Your task to perform on an android device: set the stopwatch Image 0: 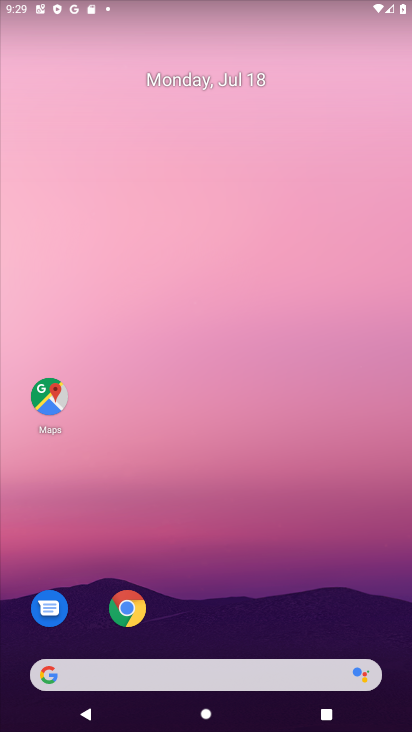
Step 0: drag from (190, 535) to (190, 270)
Your task to perform on an android device: set the stopwatch Image 1: 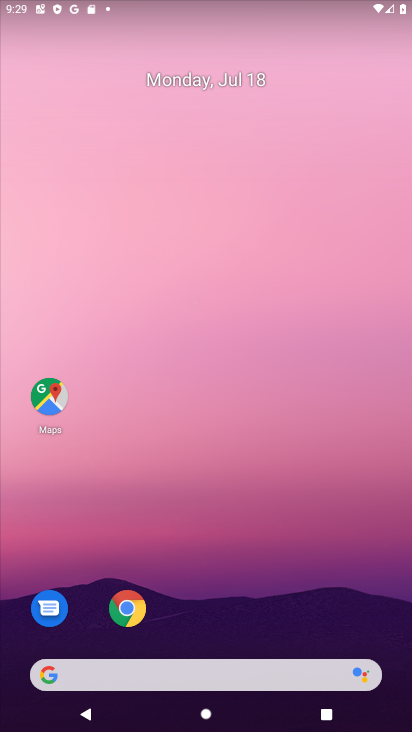
Step 1: drag from (198, 359) to (198, 240)
Your task to perform on an android device: set the stopwatch Image 2: 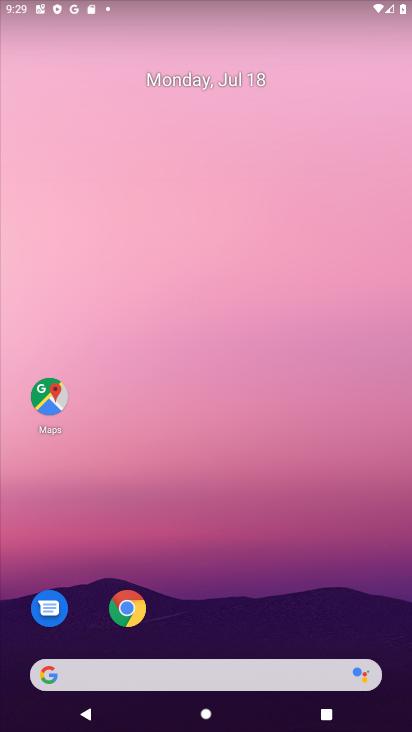
Step 2: drag from (190, 610) to (171, 116)
Your task to perform on an android device: set the stopwatch Image 3: 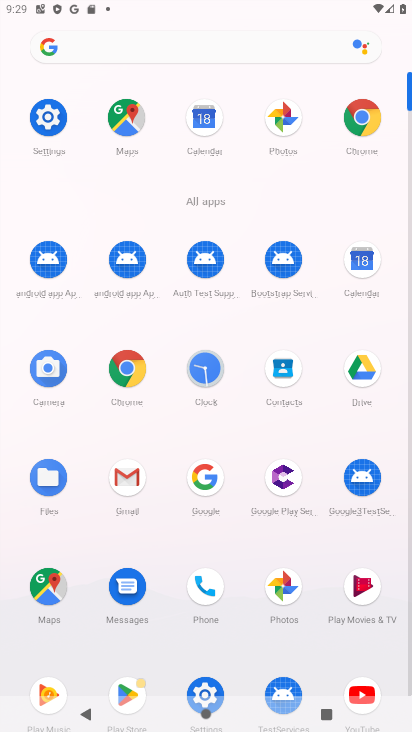
Step 3: click (202, 369)
Your task to perform on an android device: set the stopwatch Image 4: 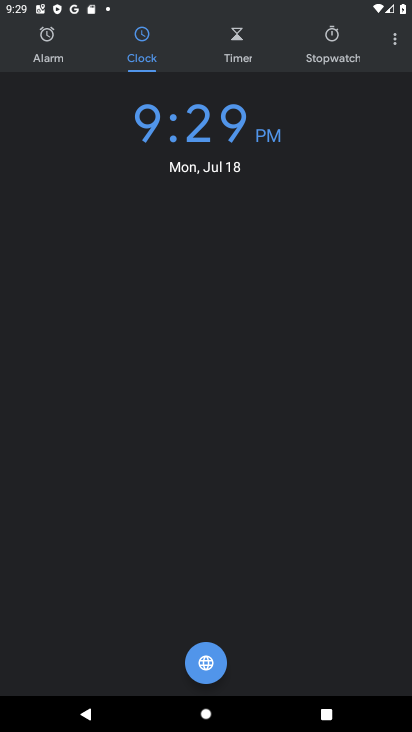
Step 4: click (326, 49)
Your task to perform on an android device: set the stopwatch Image 5: 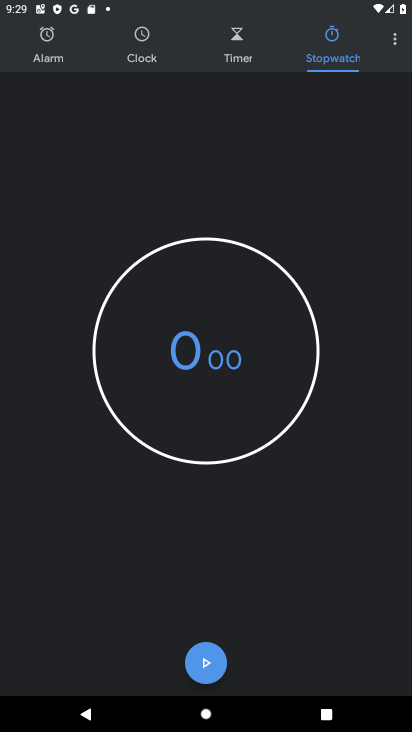
Step 5: click (213, 653)
Your task to perform on an android device: set the stopwatch Image 6: 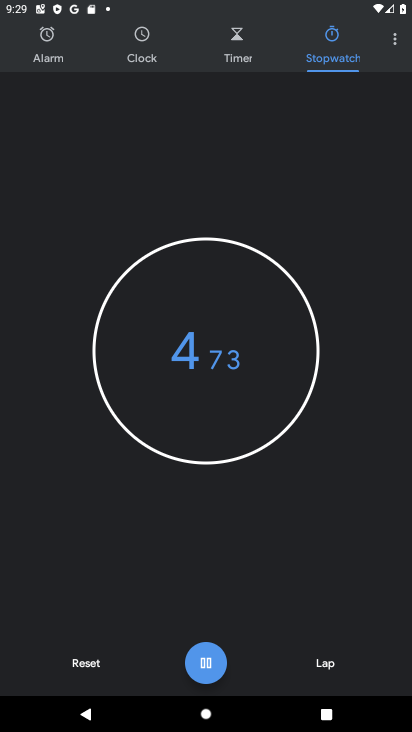
Step 6: click (212, 664)
Your task to perform on an android device: set the stopwatch Image 7: 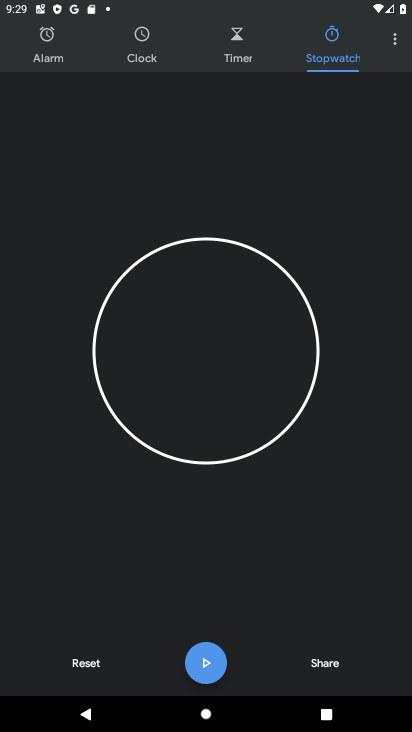
Step 7: task complete